Your task to perform on an android device: install app "Move to iOS" Image 0: 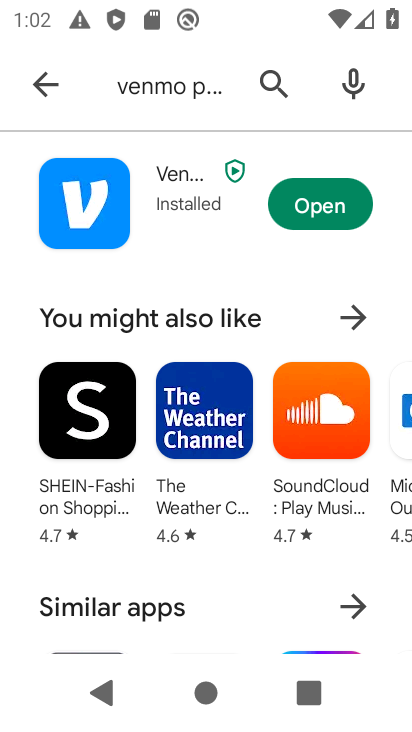
Step 0: click (273, 76)
Your task to perform on an android device: install app "Move to iOS" Image 1: 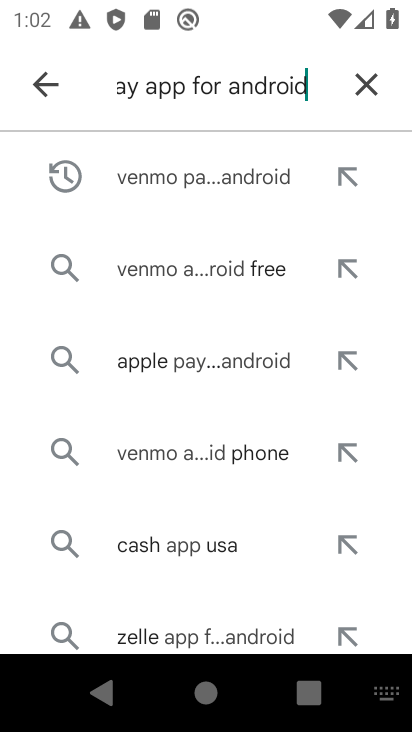
Step 1: click (363, 79)
Your task to perform on an android device: install app "Move to iOS" Image 2: 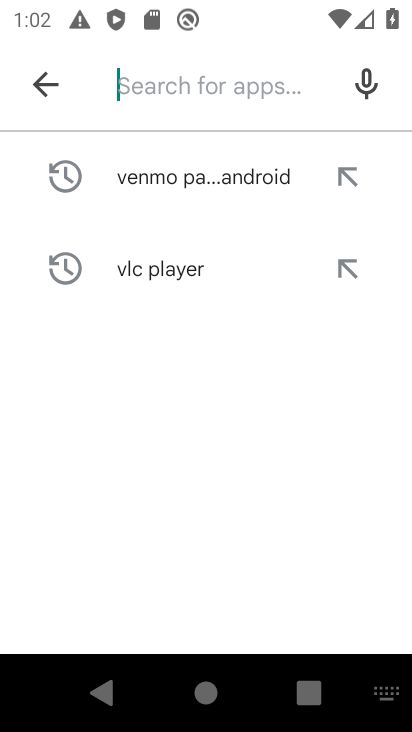
Step 2: click (215, 86)
Your task to perform on an android device: install app "Move to iOS" Image 3: 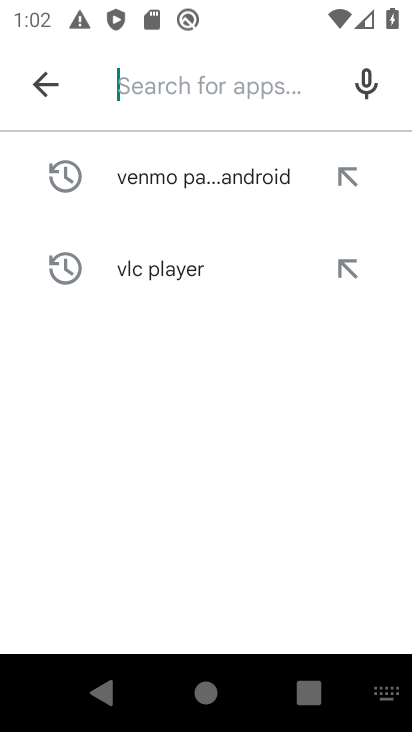
Step 3: type "Move to iOS "
Your task to perform on an android device: install app "Move to iOS" Image 4: 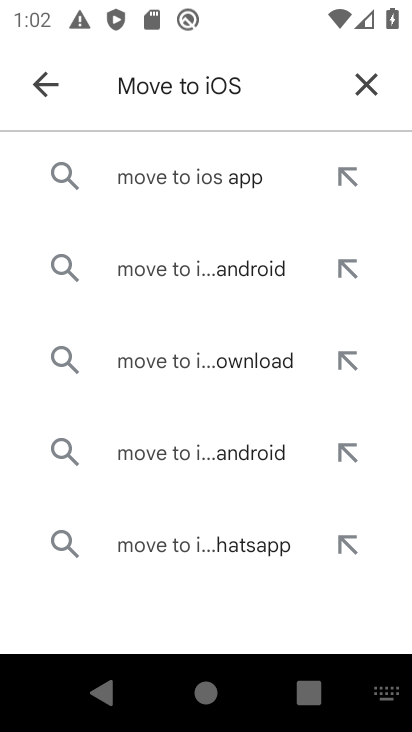
Step 4: click (219, 180)
Your task to perform on an android device: install app "Move to iOS" Image 5: 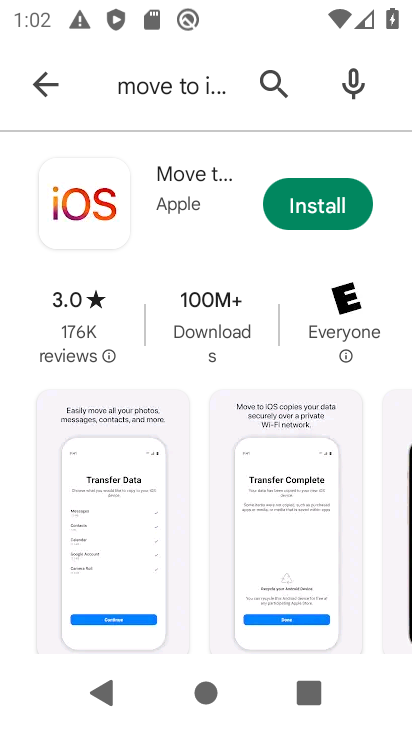
Step 5: click (313, 205)
Your task to perform on an android device: install app "Move to iOS" Image 6: 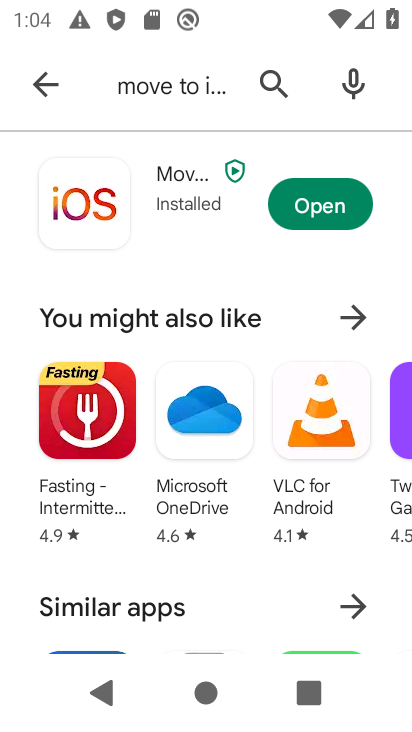
Step 6: click (291, 199)
Your task to perform on an android device: install app "Move to iOS" Image 7: 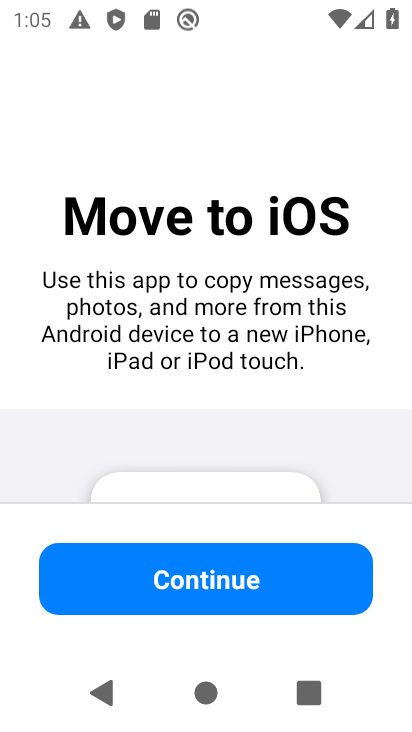
Step 7: task complete